Your task to perform on an android device: Open internet settings Image 0: 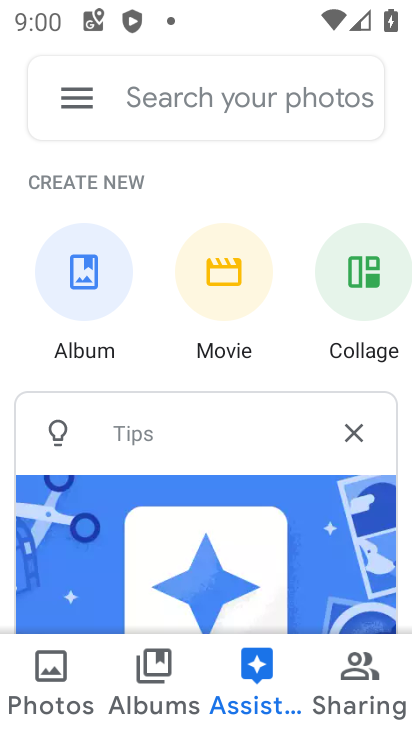
Step 0: press home button
Your task to perform on an android device: Open internet settings Image 1: 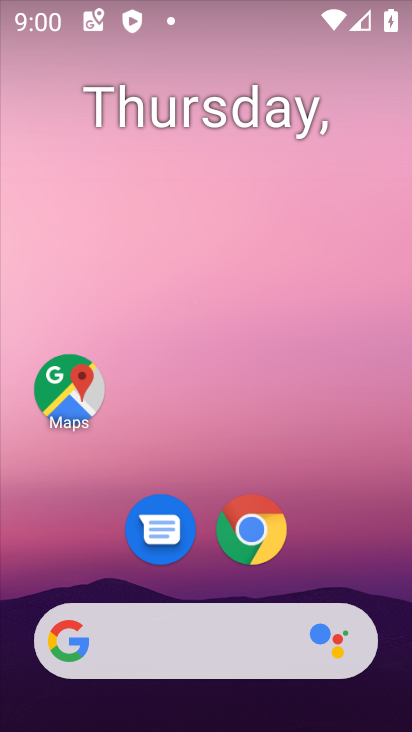
Step 1: drag from (206, 714) to (207, 120)
Your task to perform on an android device: Open internet settings Image 2: 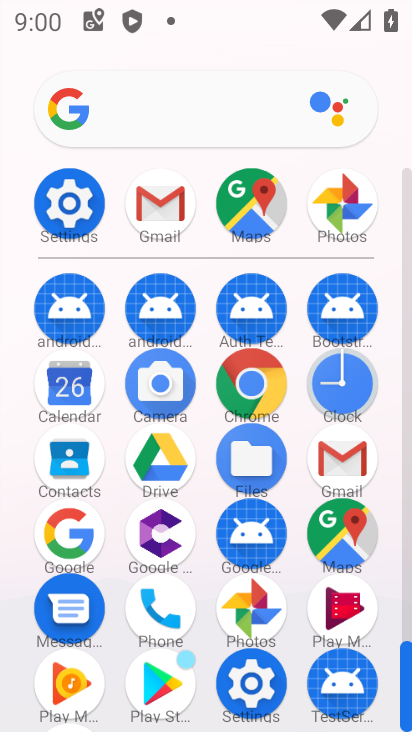
Step 2: click (77, 205)
Your task to perform on an android device: Open internet settings Image 3: 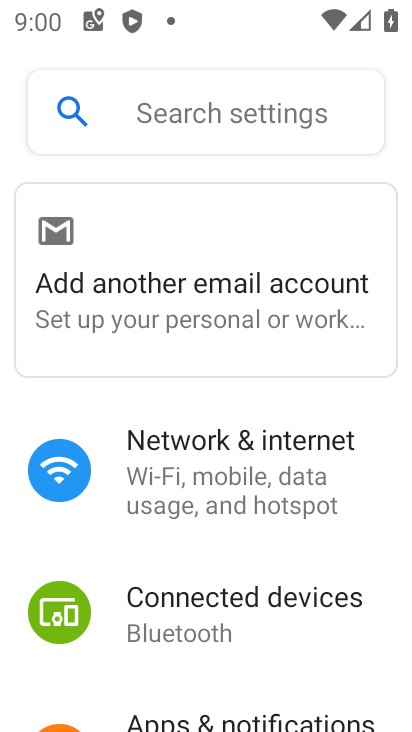
Step 3: drag from (228, 684) to (228, 471)
Your task to perform on an android device: Open internet settings Image 4: 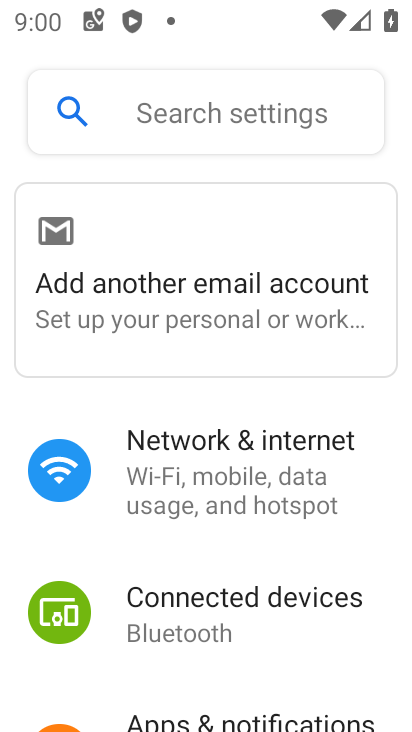
Step 4: click (259, 452)
Your task to perform on an android device: Open internet settings Image 5: 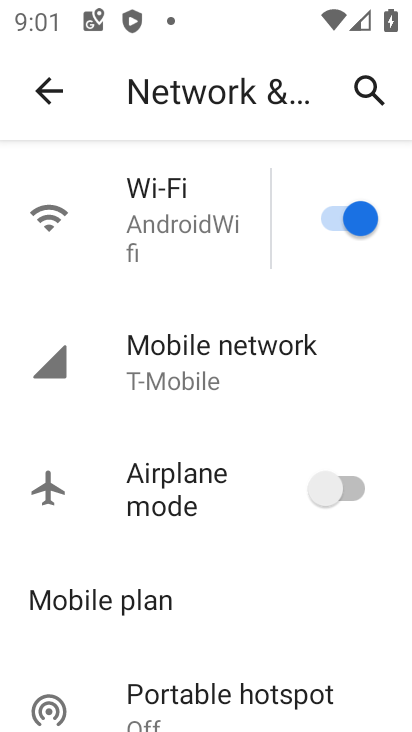
Step 5: task complete